Your task to perform on an android device: Open ESPN.com Image 0: 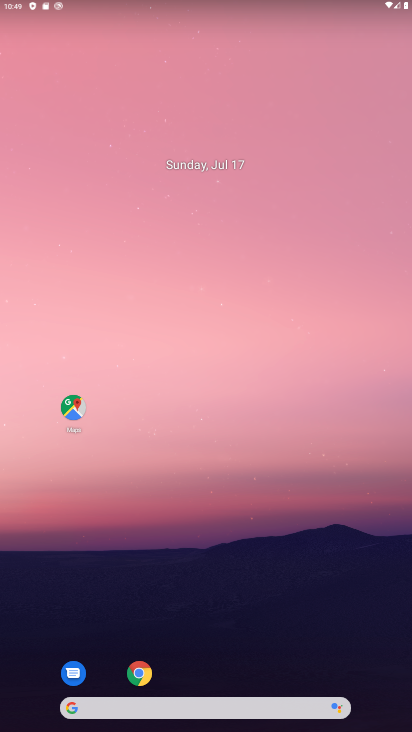
Step 0: click (142, 672)
Your task to perform on an android device: Open ESPN.com Image 1: 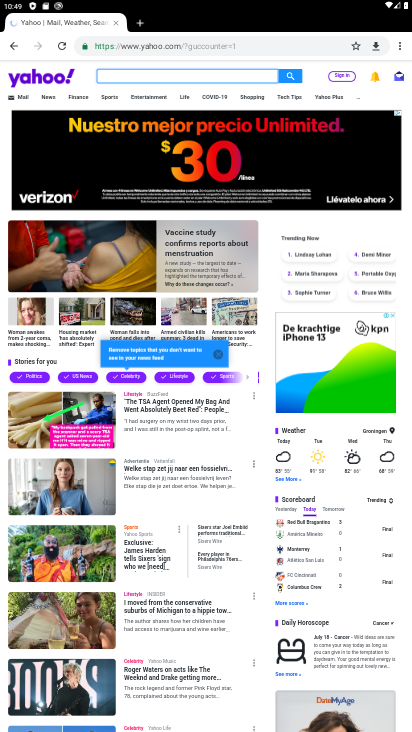
Step 1: click (401, 45)
Your task to perform on an android device: Open ESPN.com Image 2: 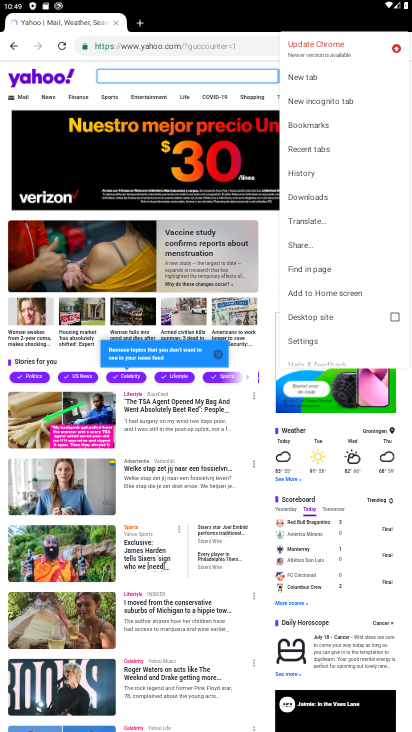
Step 2: click (305, 76)
Your task to perform on an android device: Open ESPN.com Image 3: 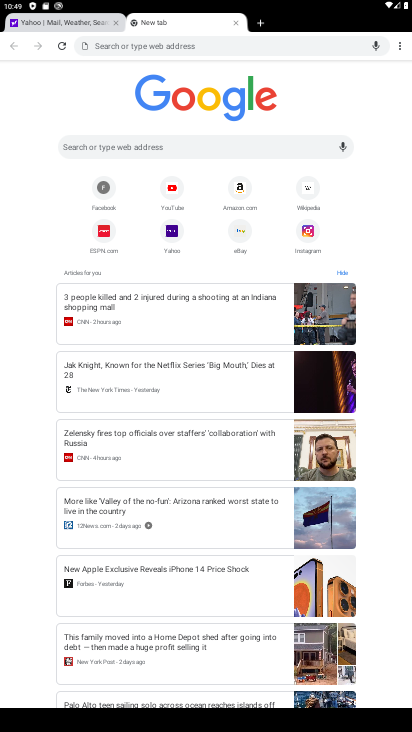
Step 3: click (99, 235)
Your task to perform on an android device: Open ESPN.com Image 4: 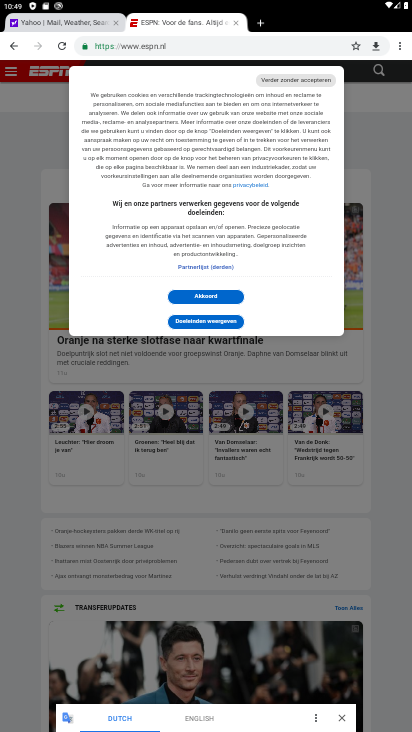
Step 4: task complete